Your task to perform on an android device: Go to ESPN.com Image 0: 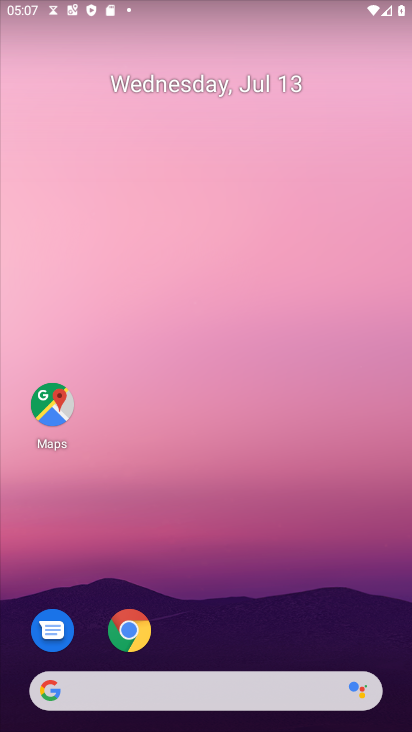
Step 0: drag from (130, 686) to (258, 207)
Your task to perform on an android device: Go to ESPN.com Image 1: 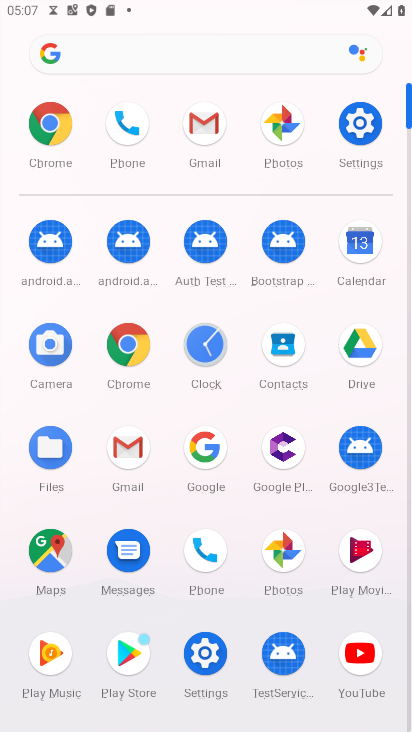
Step 1: click (129, 350)
Your task to perform on an android device: Go to ESPN.com Image 2: 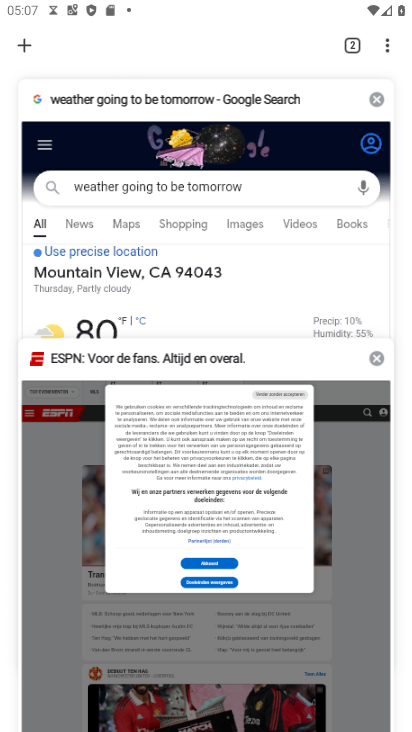
Step 2: click (182, 538)
Your task to perform on an android device: Go to ESPN.com Image 3: 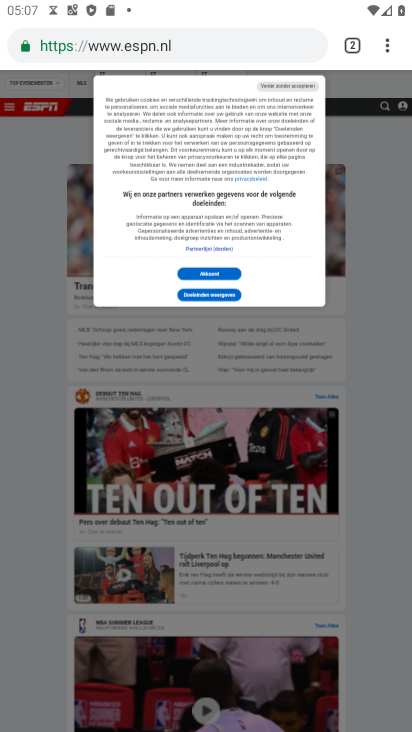
Step 3: task complete